Your task to perform on an android device: open chrome and create a bookmark for the current page Image 0: 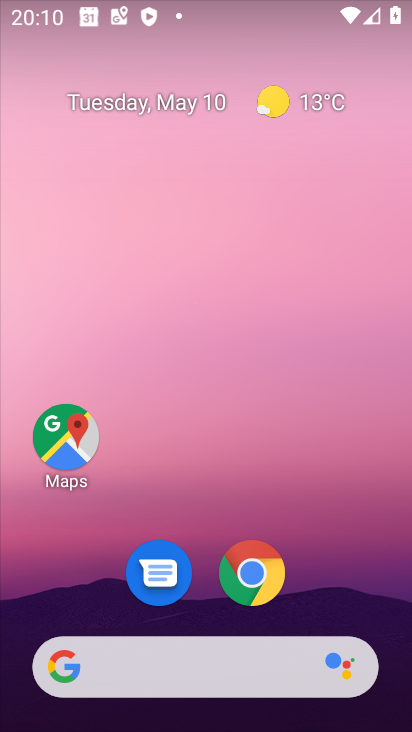
Step 0: click (252, 579)
Your task to perform on an android device: open chrome and create a bookmark for the current page Image 1: 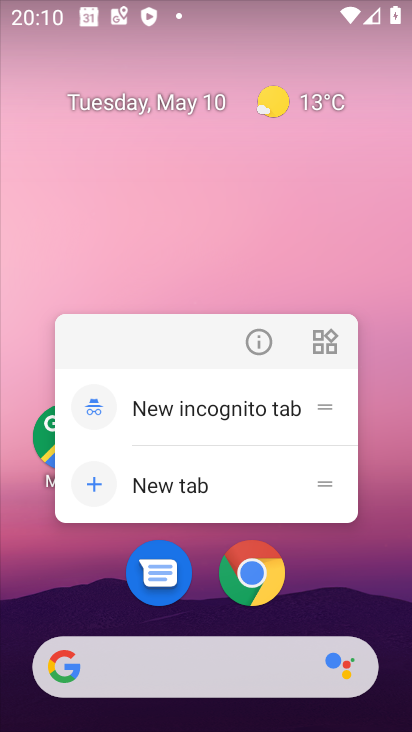
Step 1: click (257, 588)
Your task to perform on an android device: open chrome and create a bookmark for the current page Image 2: 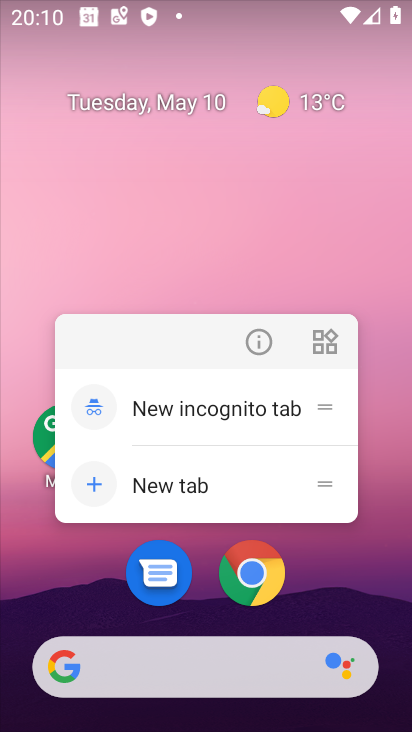
Step 2: click (253, 580)
Your task to perform on an android device: open chrome and create a bookmark for the current page Image 3: 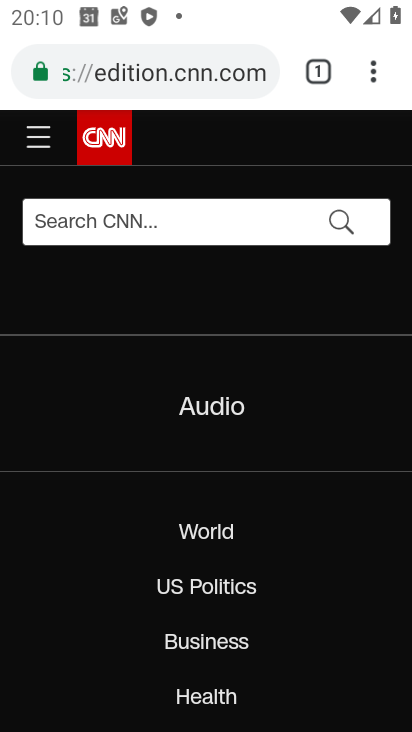
Step 3: click (374, 71)
Your task to perform on an android device: open chrome and create a bookmark for the current page Image 4: 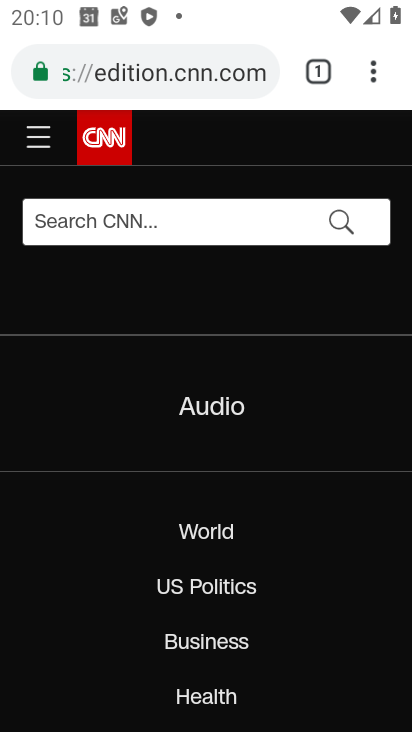
Step 4: click (374, 71)
Your task to perform on an android device: open chrome and create a bookmark for the current page Image 5: 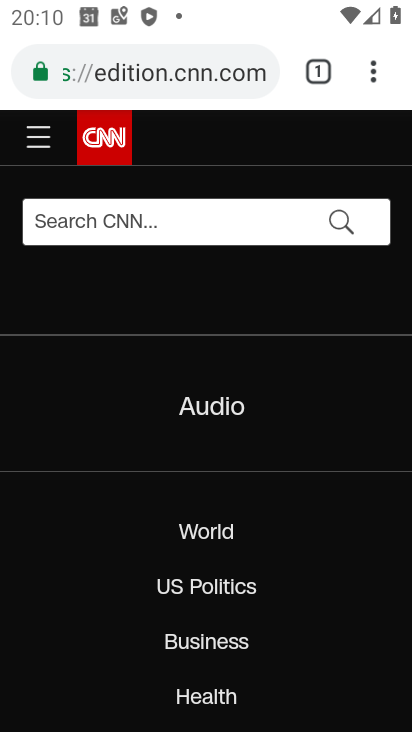
Step 5: task complete